Your task to perform on an android device: Open Google Chrome and open the bookmarks view Image 0: 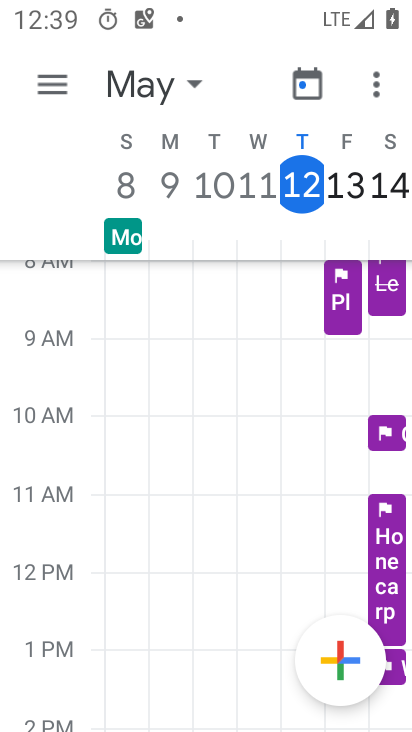
Step 0: press home button
Your task to perform on an android device: Open Google Chrome and open the bookmarks view Image 1: 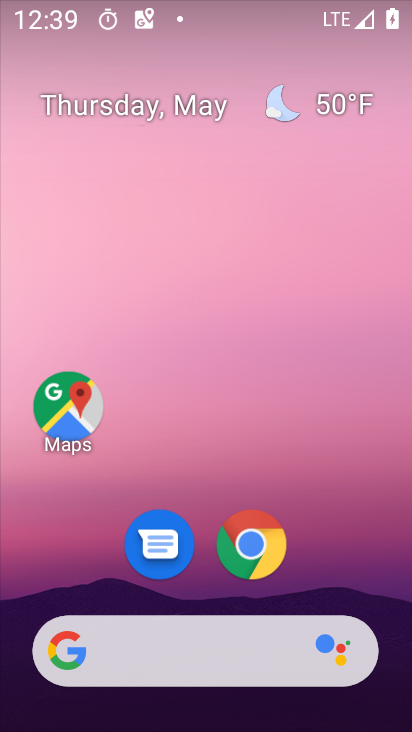
Step 1: click (248, 565)
Your task to perform on an android device: Open Google Chrome and open the bookmarks view Image 2: 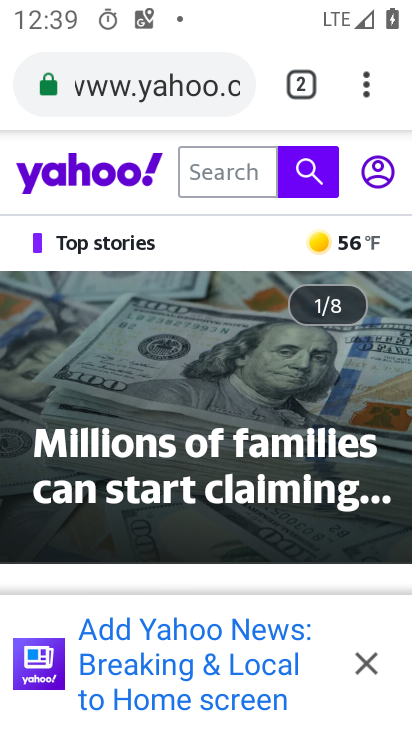
Step 2: task complete